Your task to perform on an android device: turn off smart reply in the gmail app Image 0: 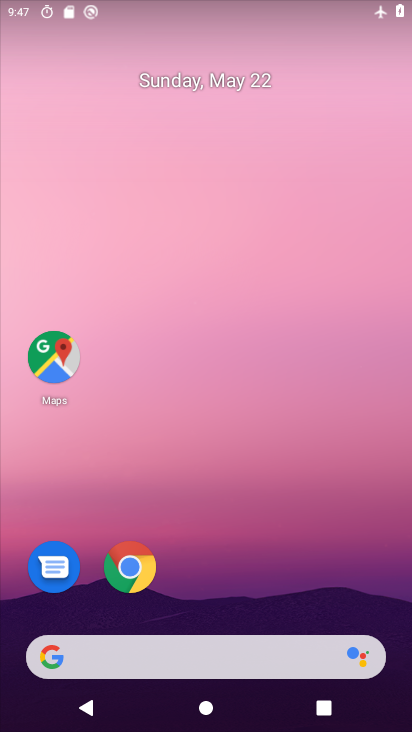
Step 0: drag from (224, 616) to (201, 18)
Your task to perform on an android device: turn off smart reply in the gmail app Image 1: 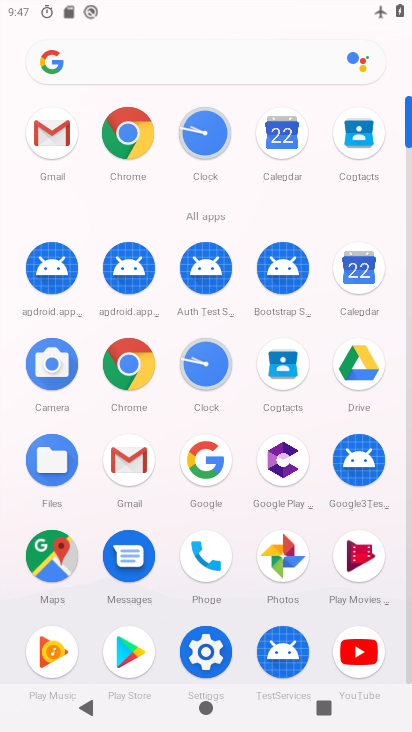
Step 1: click (49, 124)
Your task to perform on an android device: turn off smart reply in the gmail app Image 2: 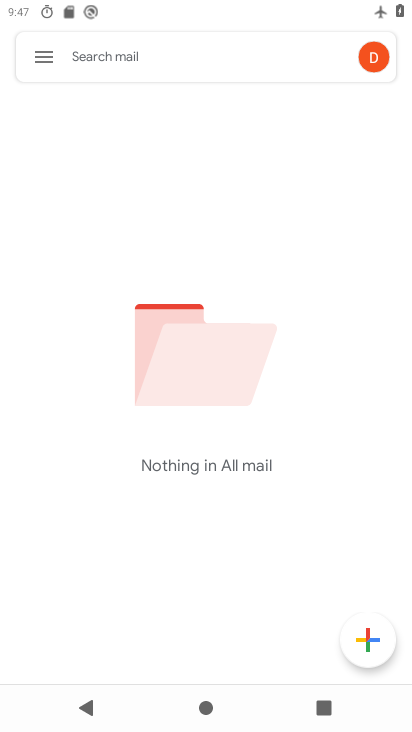
Step 2: click (41, 58)
Your task to perform on an android device: turn off smart reply in the gmail app Image 3: 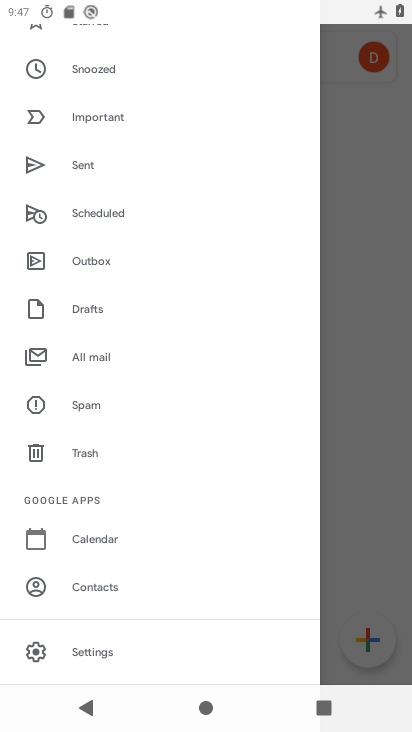
Step 3: click (129, 650)
Your task to perform on an android device: turn off smart reply in the gmail app Image 4: 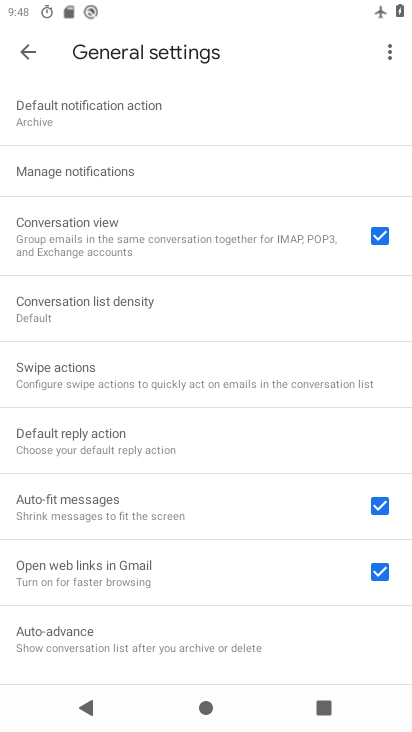
Step 4: drag from (161, 602) to (131, 89)
Your task to perform on an android device: turn off smart reply in the gmail app Image 5: 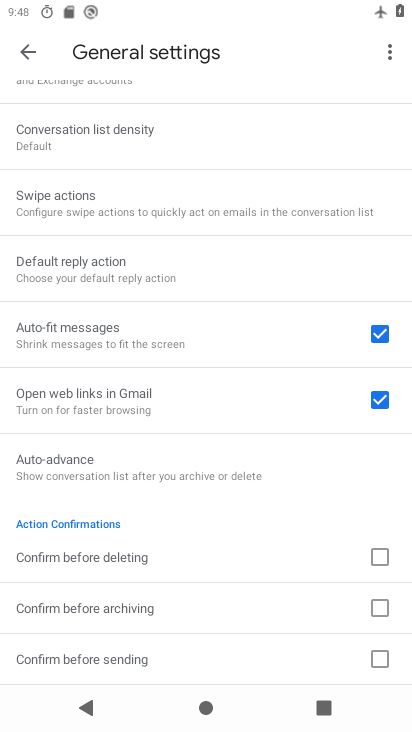
Step 5: click (27, 53)
Your task to perform on an android device: turn off smart reply in the gmail app Image 6: 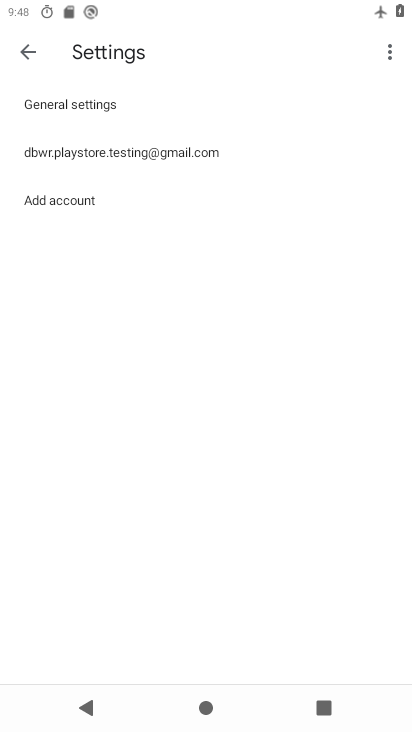
Step 6: click (211, 148)
Your task to perform on an android device: turn off smart reply in the gmail app Image 7: 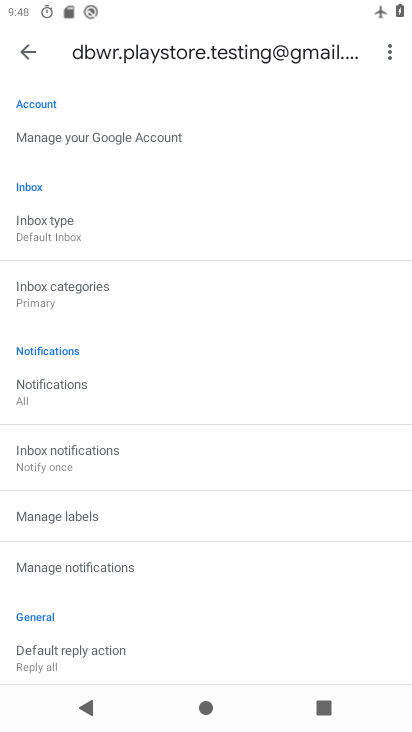
Step 7: drag from (170, 637) to (169, 118)
Your task to perform on an android device: turn off smart reply in the gmail app Image 8: 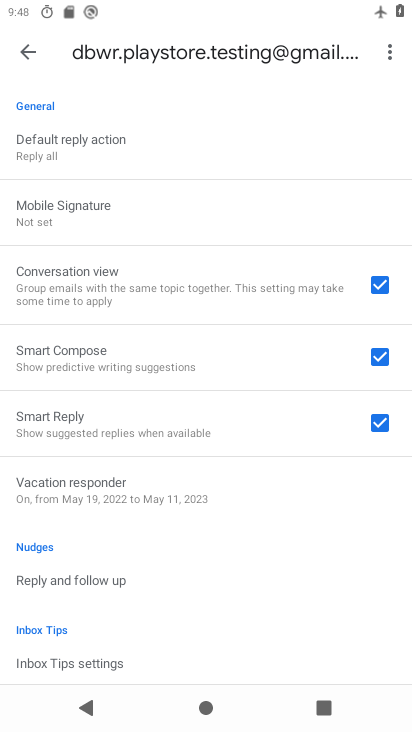
Step 8: click (382, 422)
Your task to perform on an android device: turn off smart reply in the gmail app Image 9: 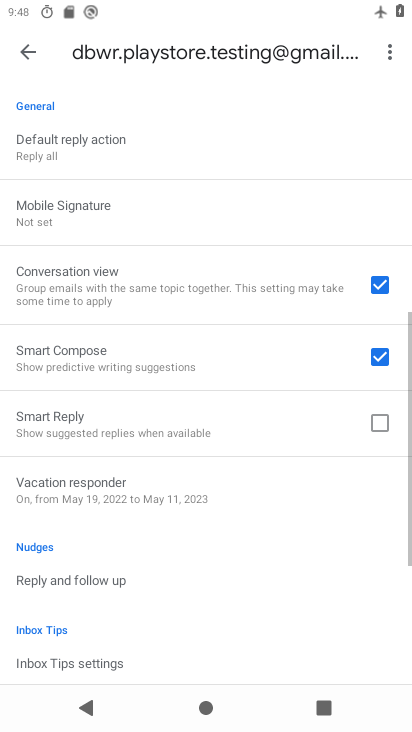
Step 9: task complete